Your task to perform on an android device: move a message to another label in the gmail app Image 0: 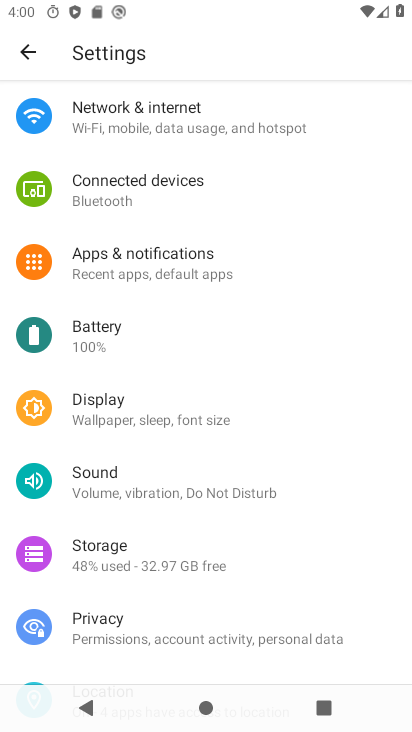
Step 0: task complete